Your task to perform on an android device: allow cookies in the chrome app Image 0: 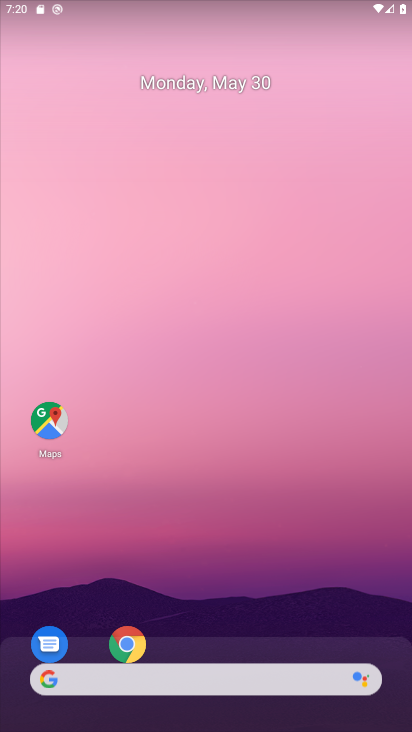
Step 0: click (127, 644)
Your task to perform on an android device: allow cookies in the chrome app Image 1: 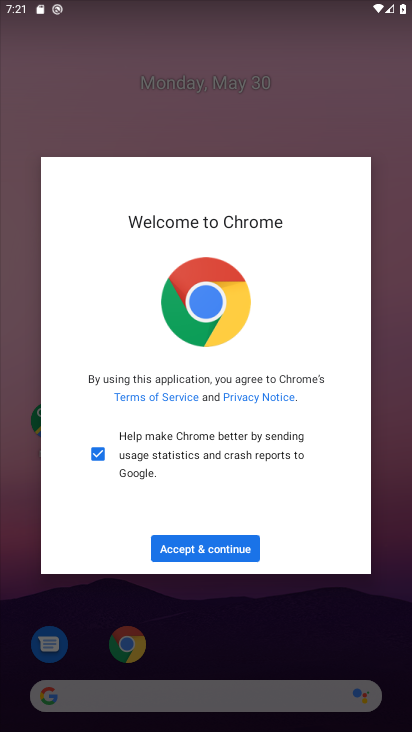
Step 1: click (179, 554)
Your task to perform on an android device: allow cookies in the chrome app Image 2: 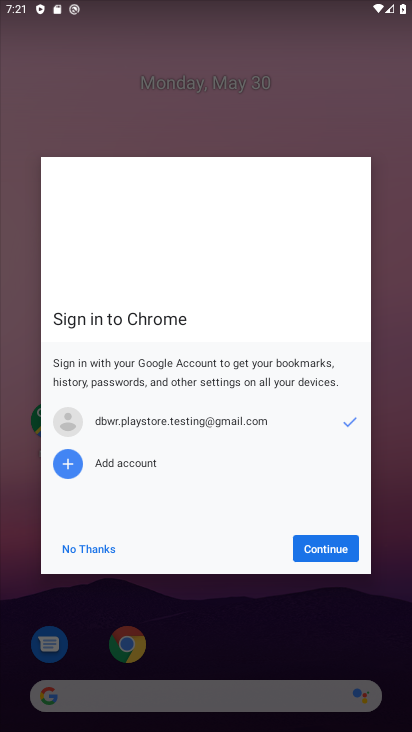
Step 2: click (327, 548)
Your task to perform on an android device: allow cookies in the chrome app Image 3: 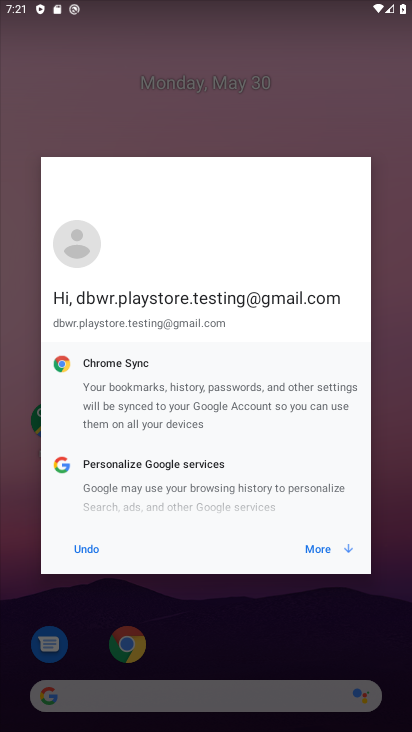
Step 3: click (327, 548)
Your task to perform on an android device: allow cookies in the chrome app Image 4: 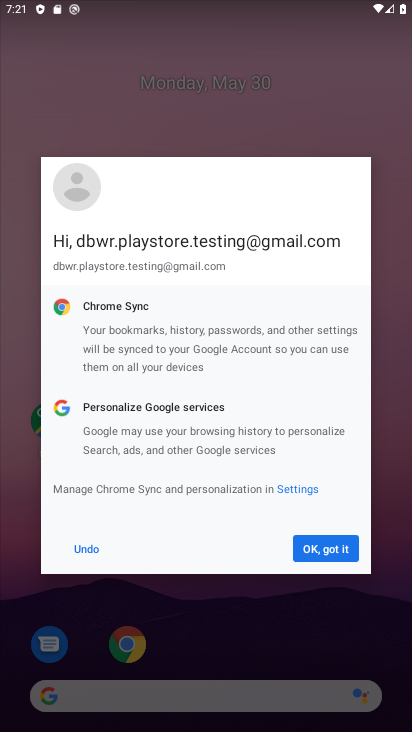
Step 4: click (327, 548)
Your task to perform on an android device: allow cookies in the chrome app Image 5: 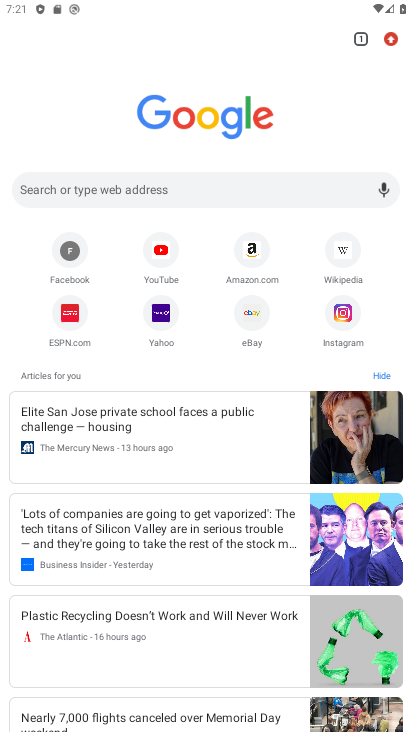
Step 5: click (392, 38)
Your task to perform on an android device: allow cookies in the chrome app Image 6: 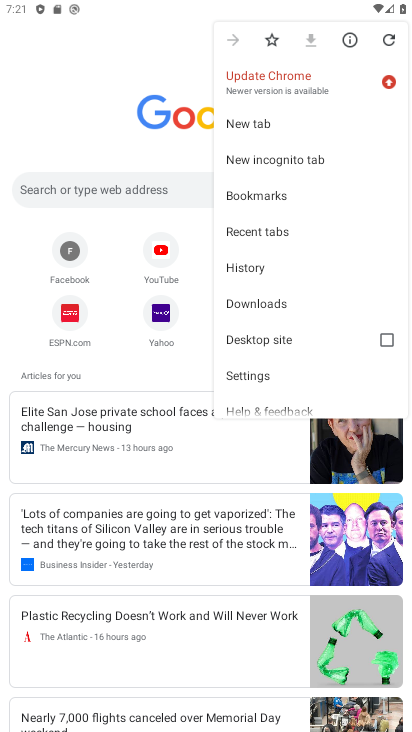
Step 6: click (261, 376)
Your task to perform on an android device: allow cookies in the chrome app Image 7: 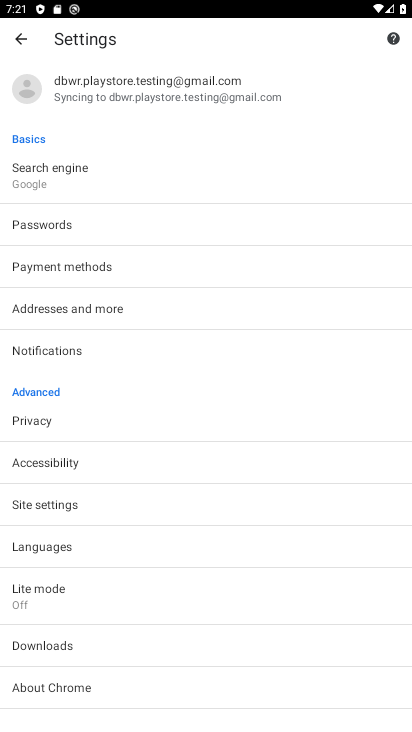
Step 7: click (63, 505)
Your task to perform on an android device: allow cookies in the chrome app Image 8: 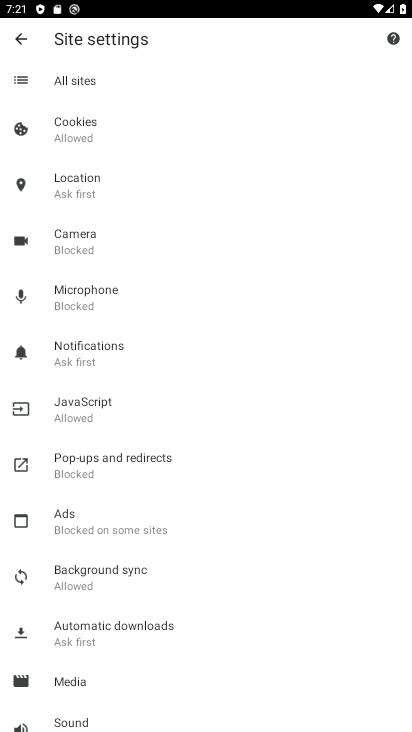
Step 8: click (77, 121)
Your task to perform on an android device: allow cookies in the chrome app Image 9: 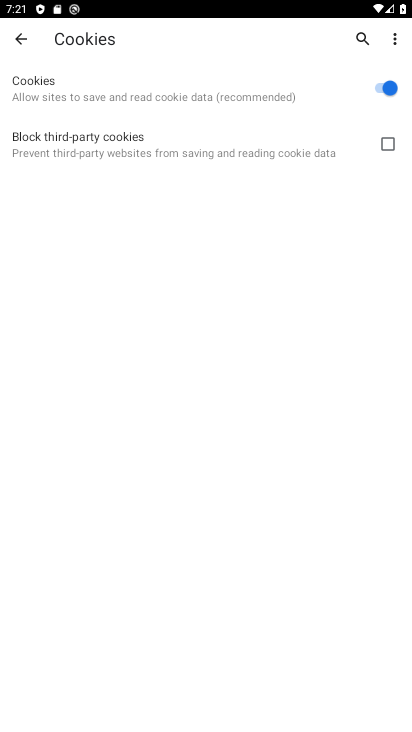
Step 9: click (387, 135)
Your task to perform on an android device: allow cookies in the chrome app Image 10: 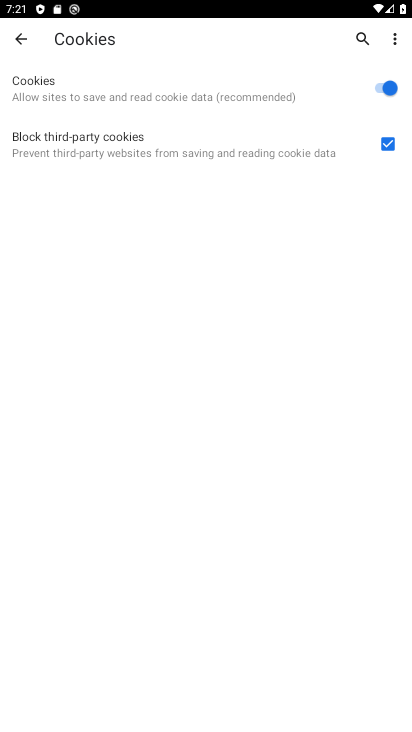
Step 10: task complete